Your task to perform on an android device: open a new tab in the chrome app Image 0: 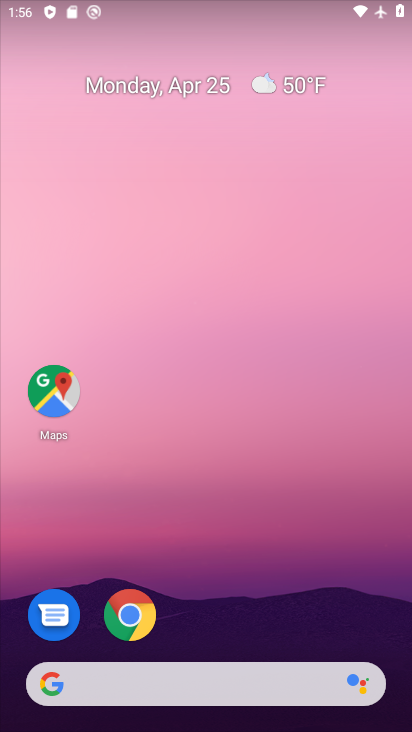
Step 0: click (132, 615)
Your task to perform on an android device: open a new tab in the chrome app Image 1: 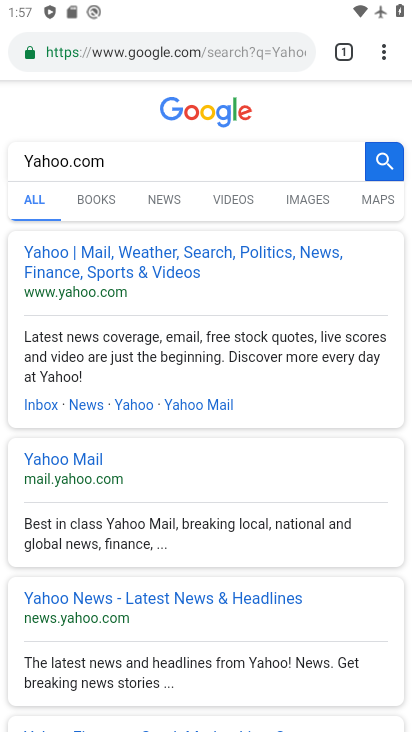
Step 1: click (383, 51)
Your task to perform on an android device: open a new tab in the chrome app Image 2: 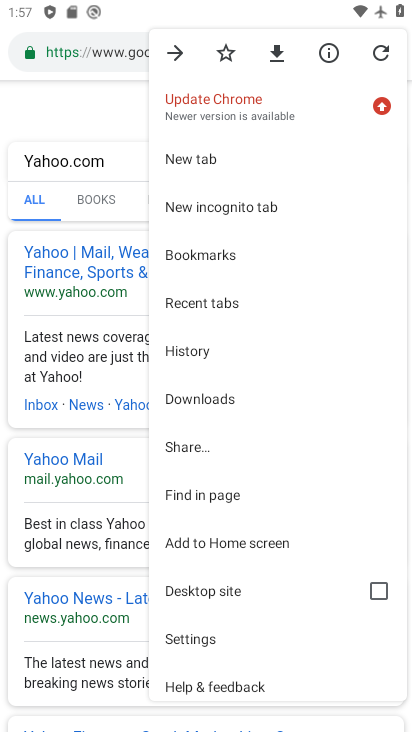
Step 2: click (203, 162)
Your task to perform on an android device: open a new tab in the chrome app Image 3: 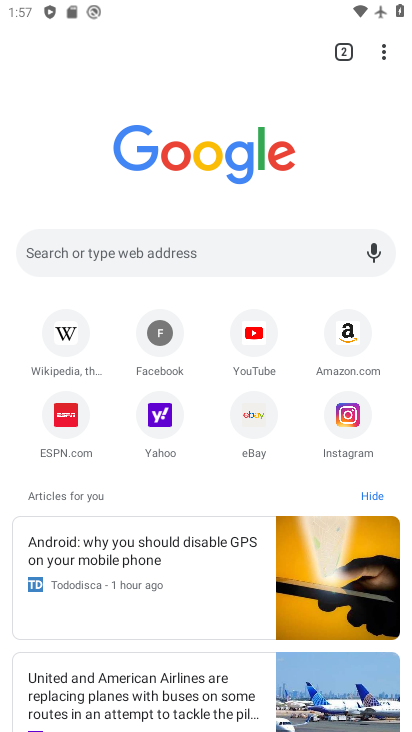
Step 3: task complete